Your task to perform on an android device: Open internet settings Image 0: 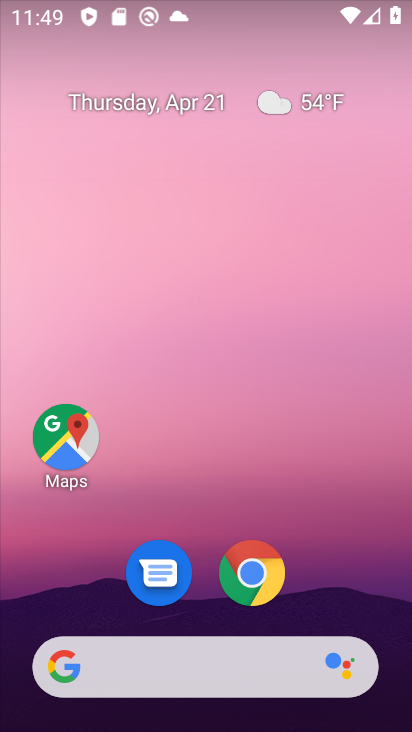
Step 0: drag from (349, 612) to (348, 91)
Your task to perform on an android device: Open internet settings Image 1: 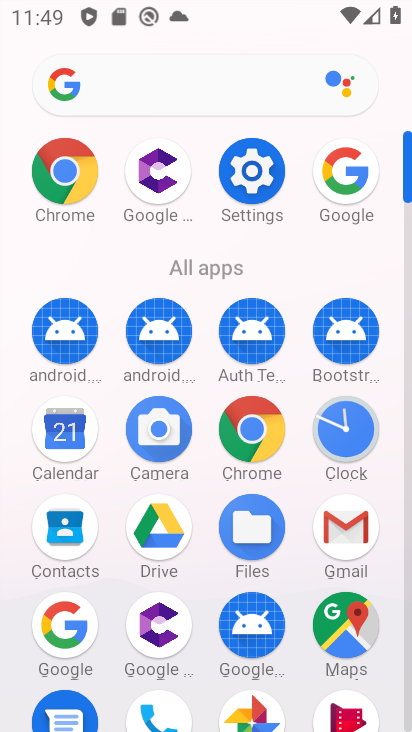
Step 1: click (262, 197)
Your task to perform on an android device: Open internet settings Image 2: 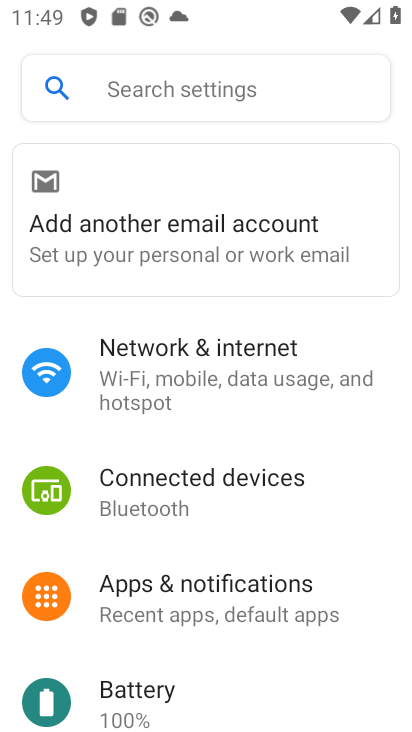
Step 2: click (248, 353)
Your task to perform on an android device: Open internet settings Image 3: 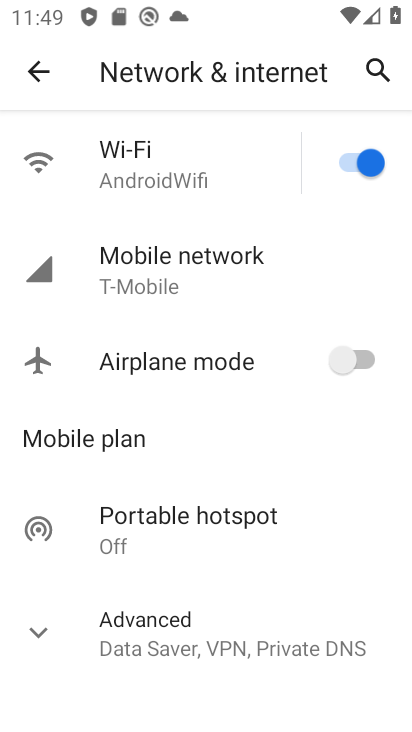
Step 3: click (219, 264)
Your task to perform on an android device: Open internet settings Image 4: 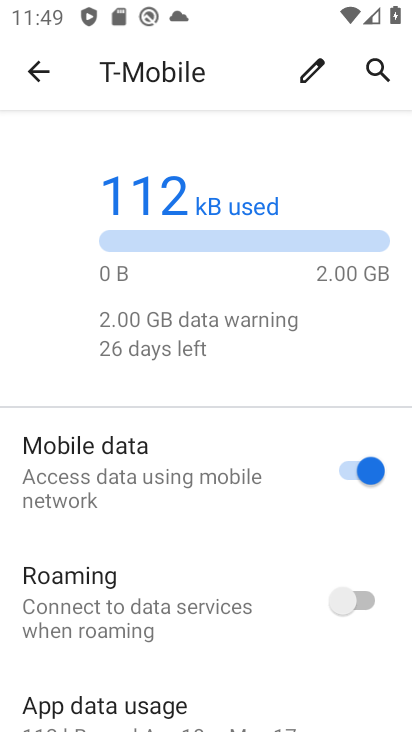
Step 4: task complete